Your task to perform on an android device: star an email in the gmail app Image 0: 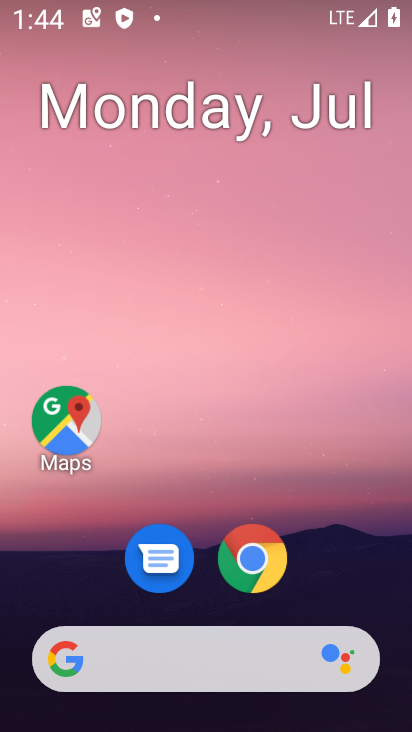
Step 0: drag from (371, 577) to (361, 131)
Your task to perform on an android device: star an email in the gmail app Image 1: 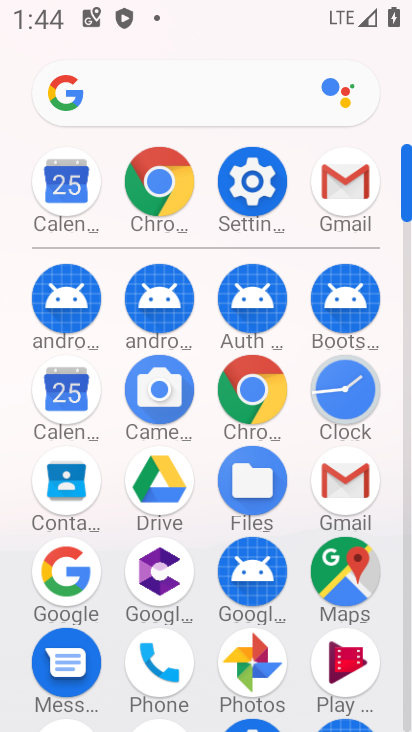
Step 1: click (337, 480)
Your task to perform on an android device: star an email in the gmail app Image 2: 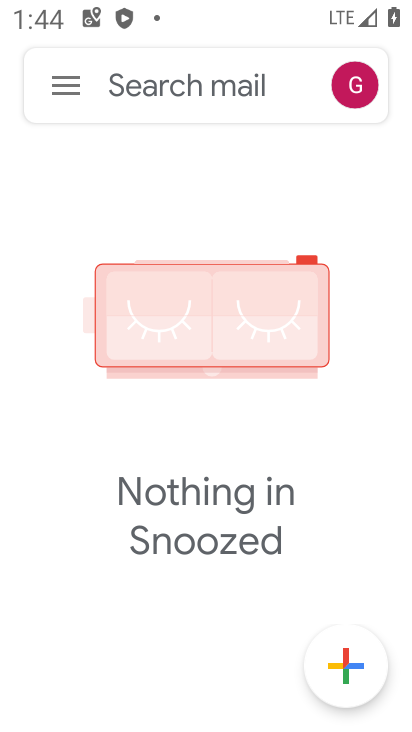
Step 2: click (71, 91)
Your task to perform on an android device: star an email in the gmail app Image 3: 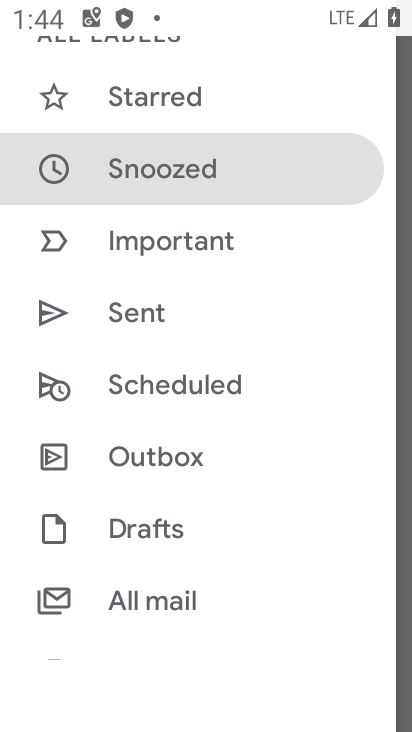
Step 3: drag from (328, 276) to (332, 417)
Your task to perform on an android device: star an email in the gmail app Image 4: 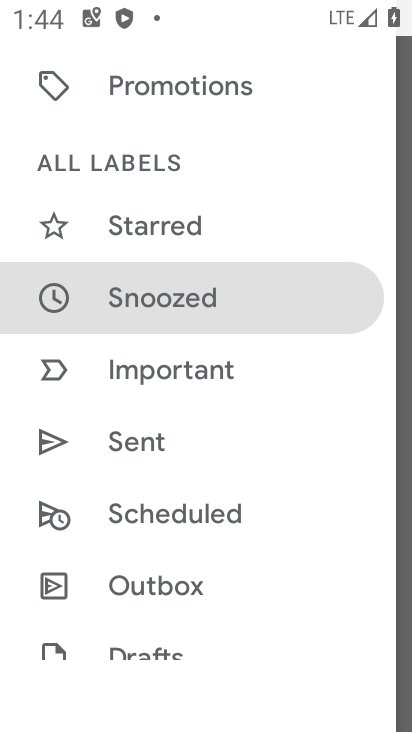
Step 4: drag from (291, 182) to (288, 408)
Your task to perform on an android device: star an email in the gmail app Image 5: 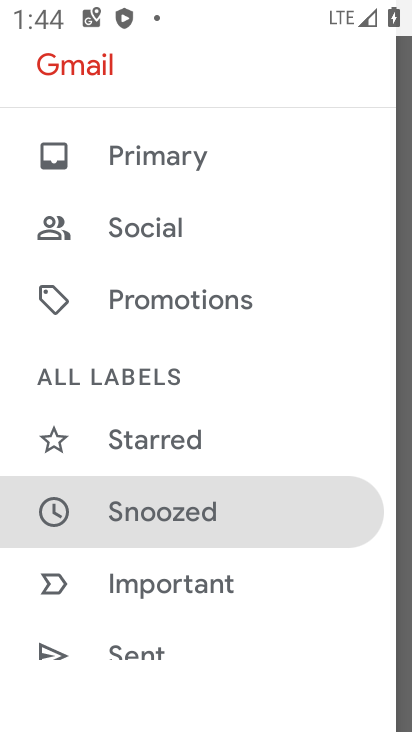
Step 5: drag from (291, 171) to (294, 448)
Your task to perform on an android device: star an email in the gmail app Image 6: 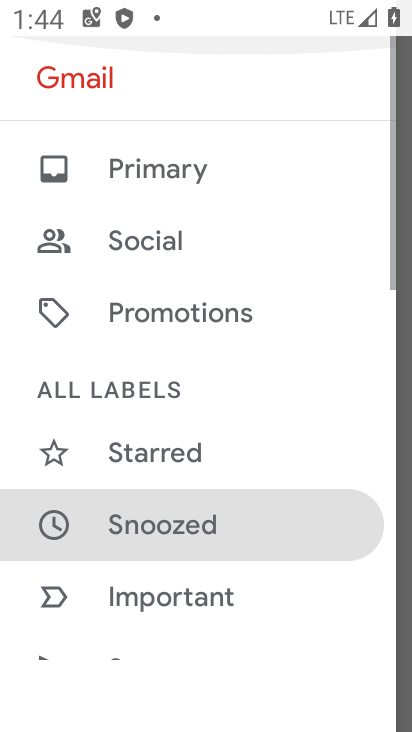
Step 6: drag from (298, 467) to (308, 289)
Your task to perform on an android device: star an email in the gmail app Image 7: 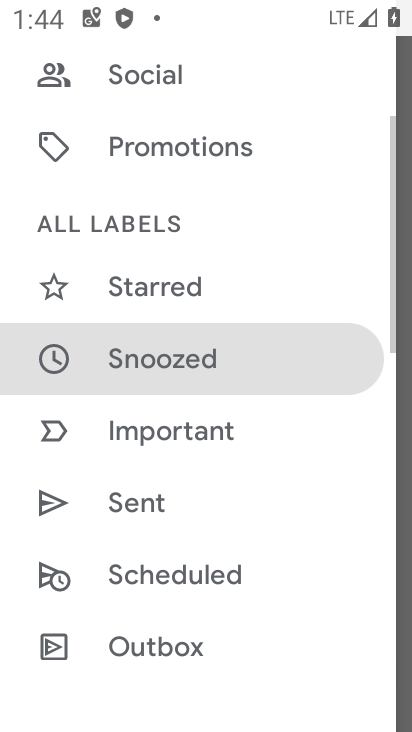
Step 7: drag from (303, 492) to (302, 308)
Your task to perform on an android device: star an email in the gmail app Image 8: 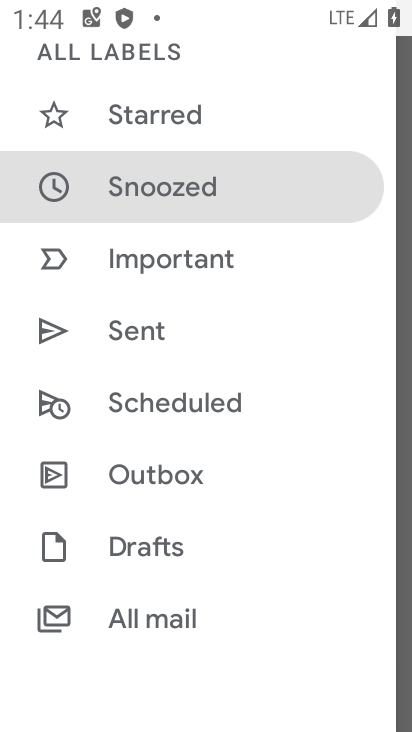
Step 8: drag from (278, 579) to (274, 268)
Your task to perform on an android device: star an email in the gmail app Image 9: 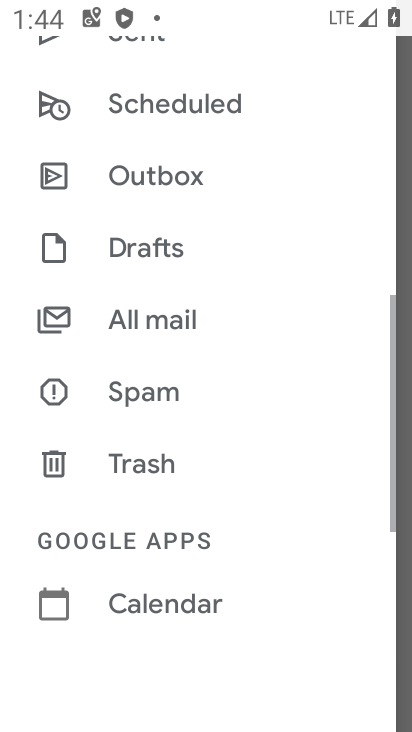
Step 9: click (230, 311)
Your task to perform on an android device: star an email in the gmail app Image 10: 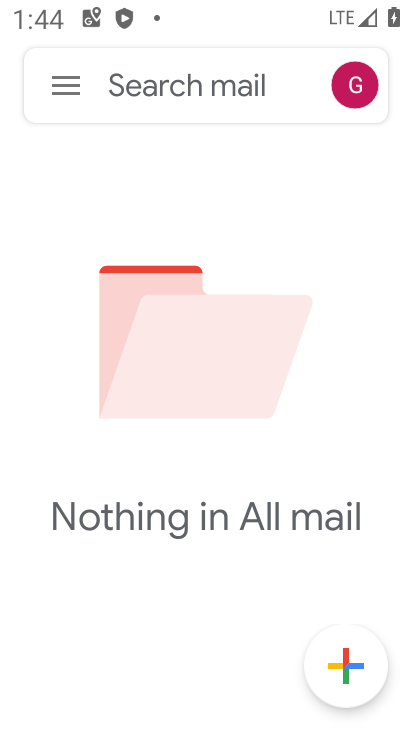
Step 10: task complete